Your task to perform on an android device: Is it going to rain this weekend? Image 0: 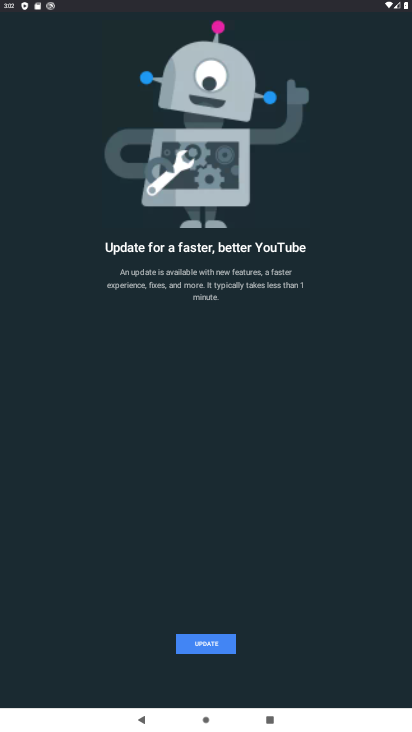
Step 0: press home button
Your task to perform on an android device: Is it going to rain this weekend? Image 1: 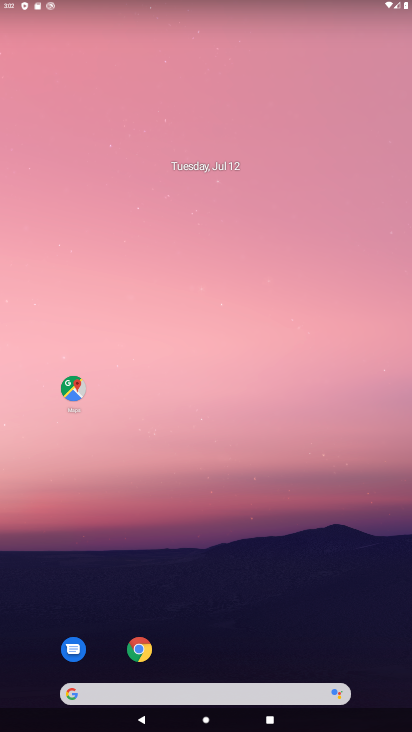
Step 1: drag from (130, 680) to (130, 193)
Your task to perform on an android device: Is it going to rain this weekend? Image 2: 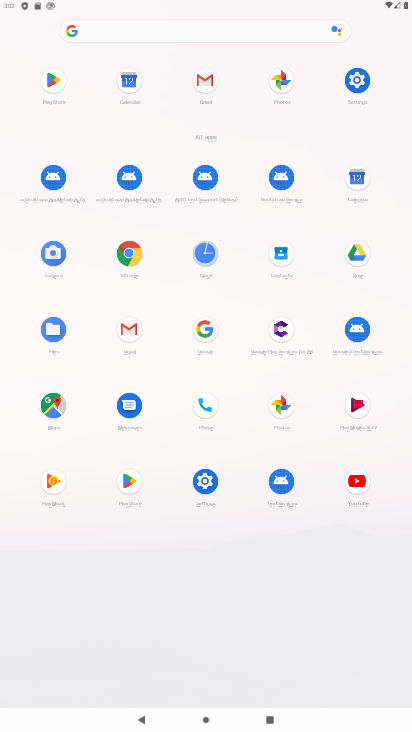
Step 2: click (208, 329)
Your task to perform on an android device: Is it going to rain this weekend? Image 3: 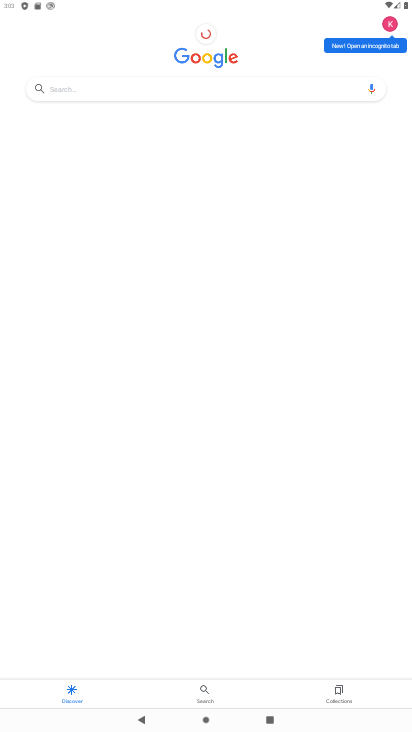
Step 3: click (82, 87)
Your task to perform on an android device: Is it going to rain this weekend? Image 4: 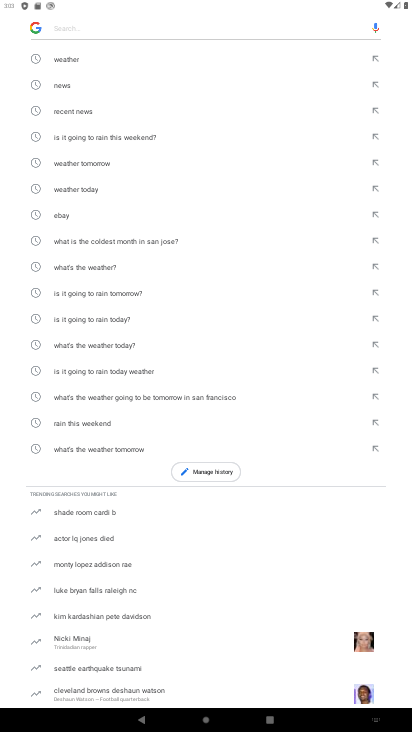
Step 4: click (115, 139)
Your task to perform on an android device: Is it going to rain this weekend? Image 5: 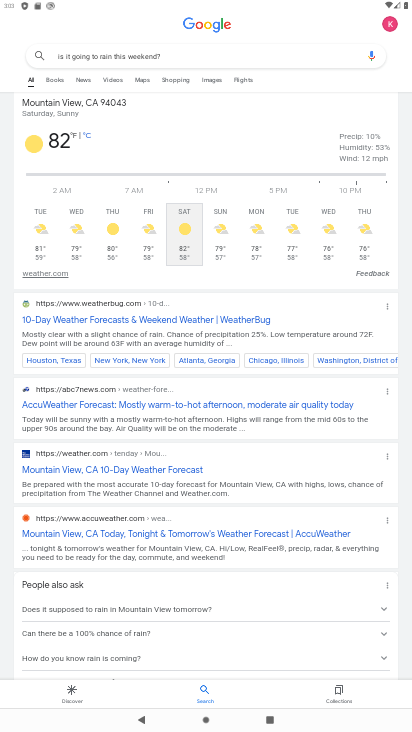
Step 5: task complete